Your task to perform on an android device: turn on data saver in the chrome app Image 0: 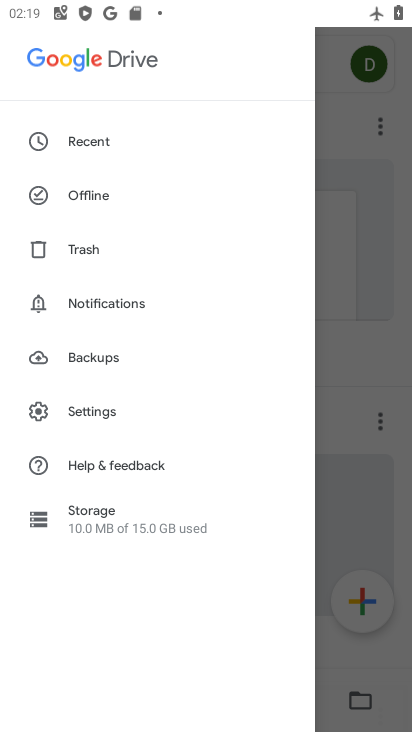
Step 0: press home button
Your task to perform on an android device: turn on data saver in the chrome app Image 1: 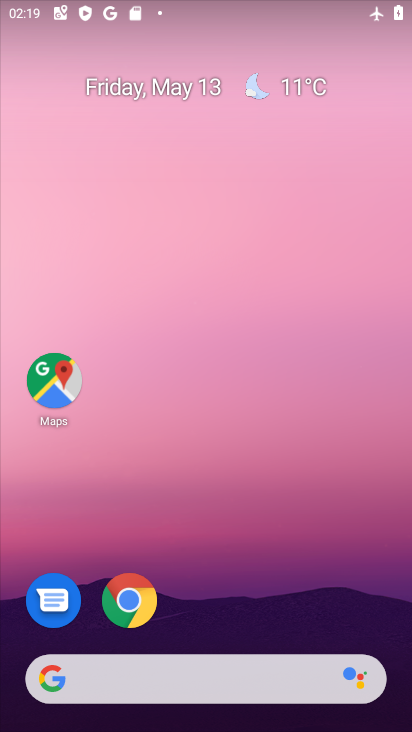
Step 1: drag from (193, 626) to (237, 123)
Your task to perform on an android device: turn on data saver in the chrome app Image 2: 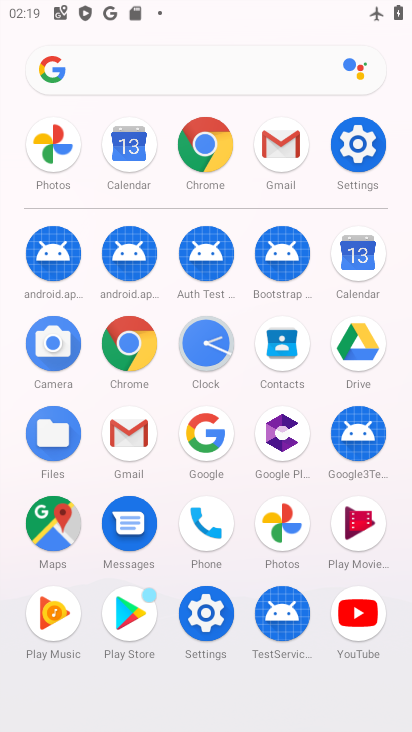
Step 2: click (130, 336)
Your task to perform on an android device: turn on data saver in the chrome app Image 3: 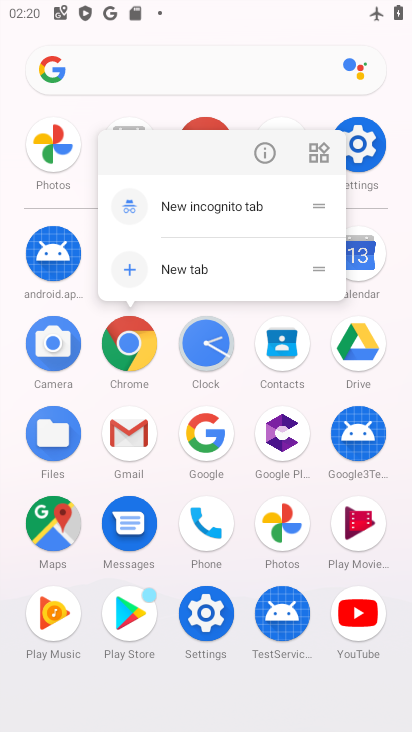
Step 3: click (279, 156)
Your task to perform on an android device: turn on data saver in the chrome app Image 4: 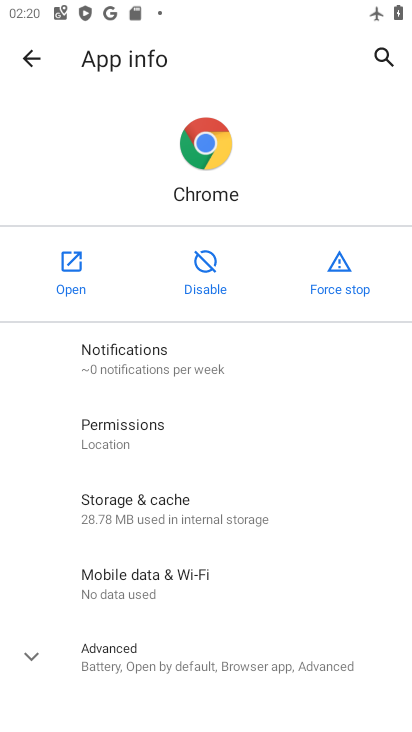
Step 4: click (68, 287)
Your task to perform on an android device: turn on data saver in the chrome app Image 5: 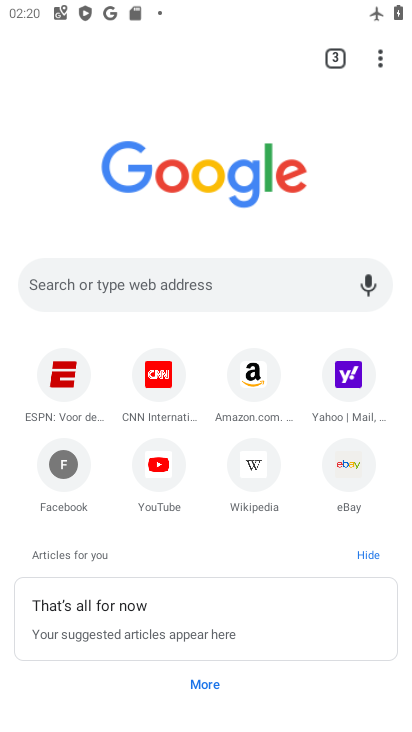
Step 5: drag from (388, 49) to (198, 474)
Your task to perform on an android device: turn on data saver in the chrome app Image 6: 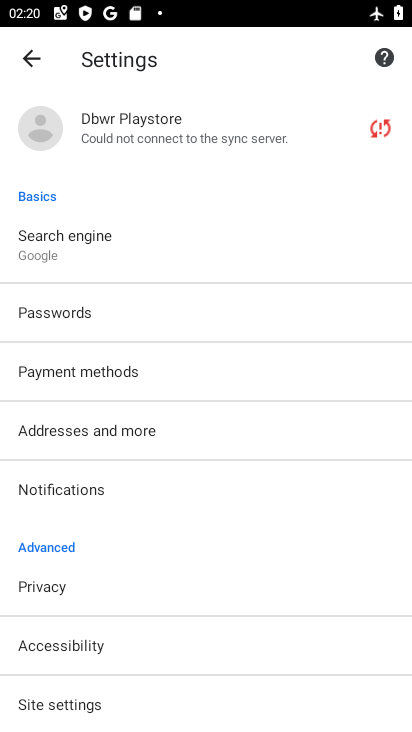
Step 6: drag from (145, 627) to (238, 194)
Your task to perform on an android device: turn on data saver in the chrome app Image 7: 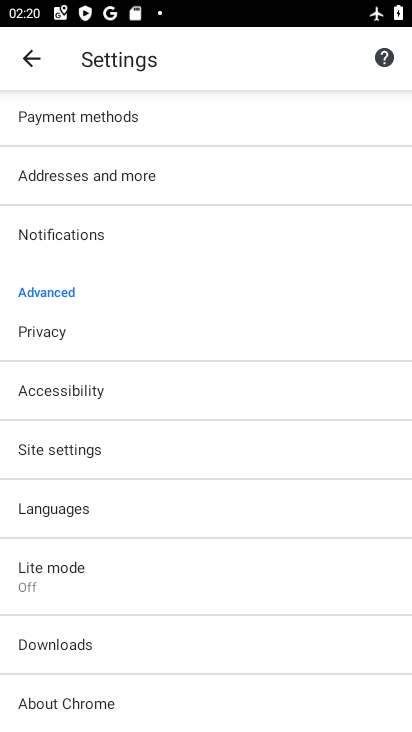
Step 7: click (116, 586)
Your task to perform on an android device: turn on data saver in the chrome app Image 8: 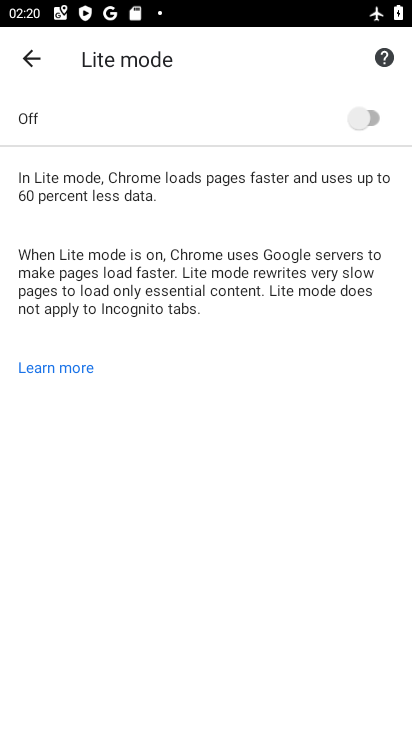
Step 8: click (345, 130)
Your task to perform on an android device: turn on data saver in the chrome app Image 9: 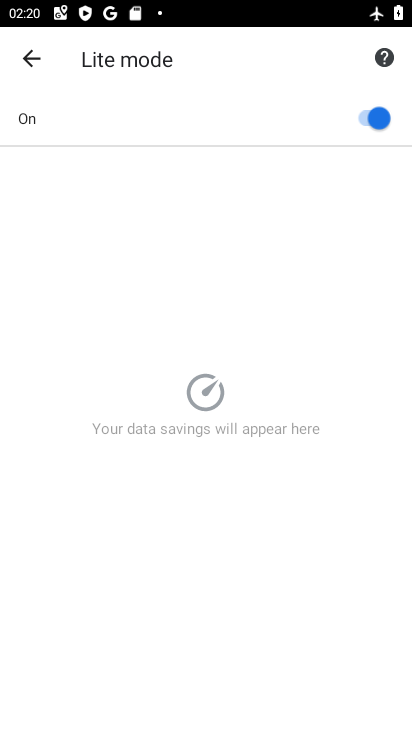
Step 9: task complete